Your task to perform on an android device: Open network settings Image 0: 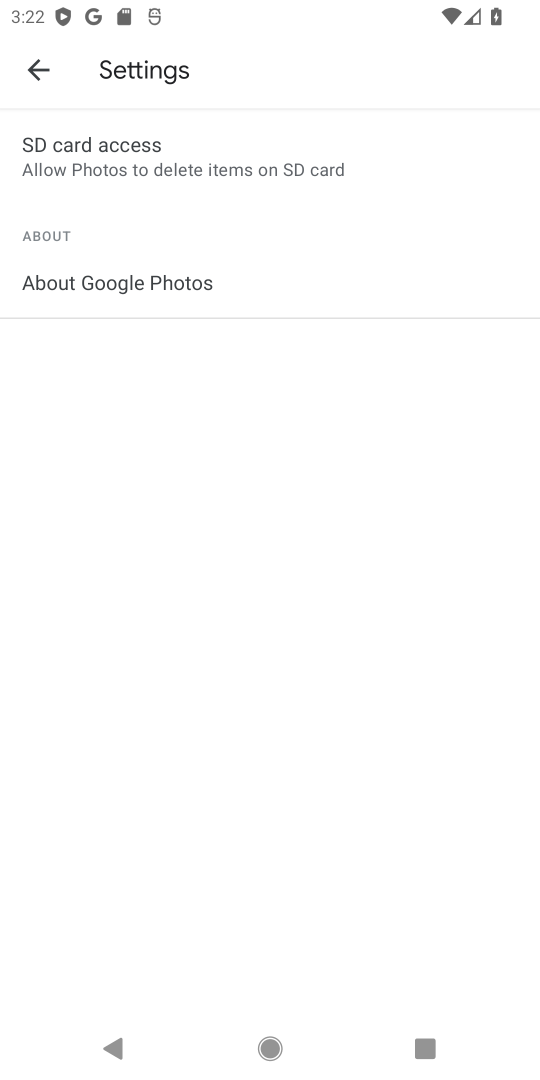
Step 0: press home button
Your task to perform on an android device: Open network settings Image 1: 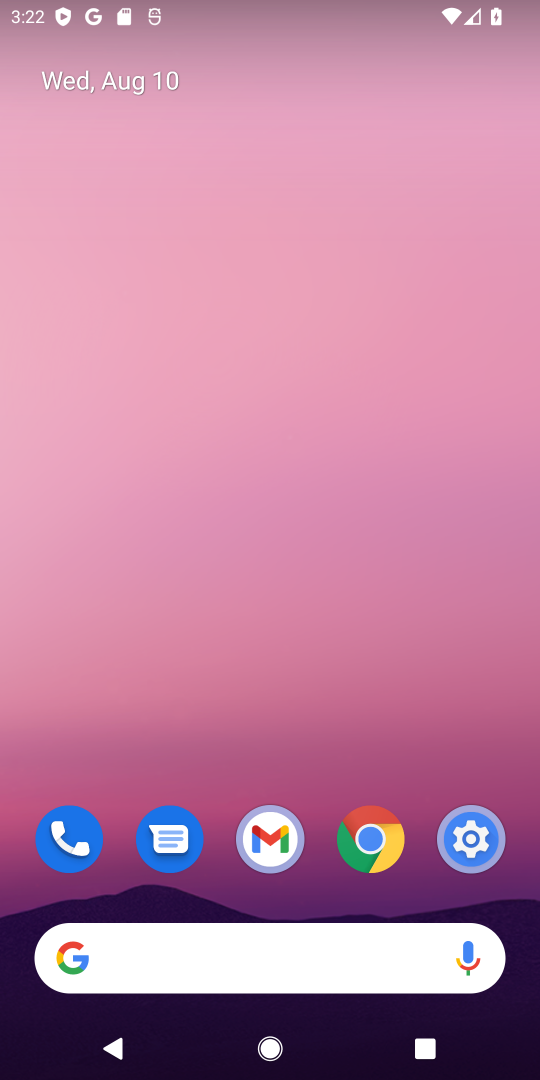
Step 1: click (461, 852)
Your task to perform on an android device: Open network settings Image 2: 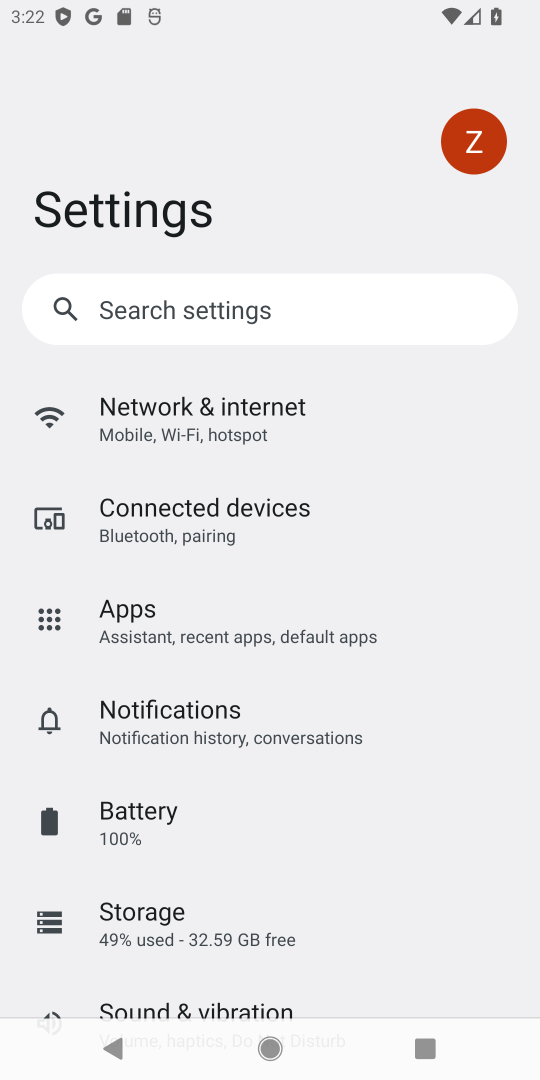
Step 2: click (236, 418)
Your task to perform on an android device: Open network settings Image 3: 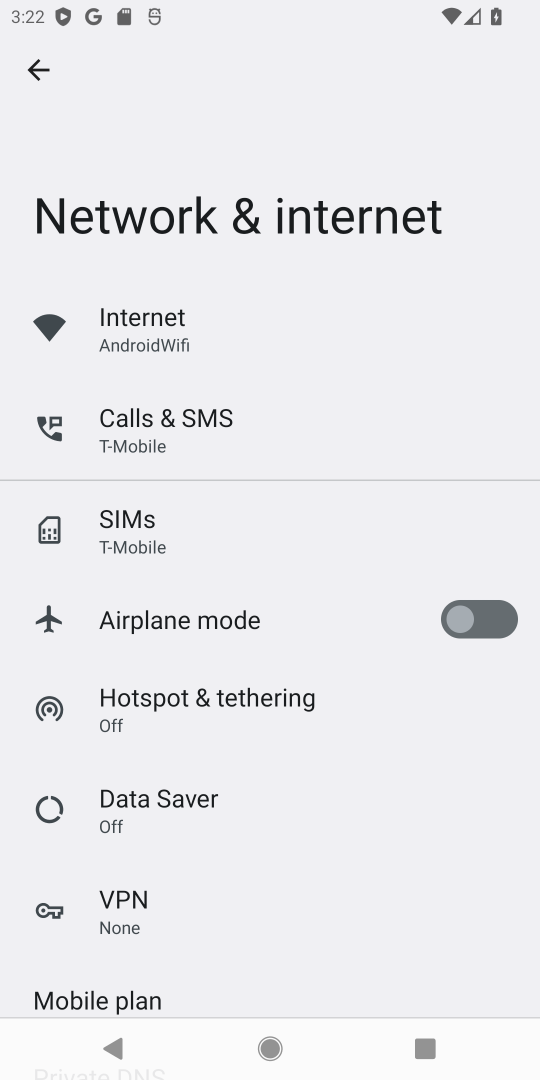
Step 3: task complete